Your task to perform on an android device: Go to Google Image 0: 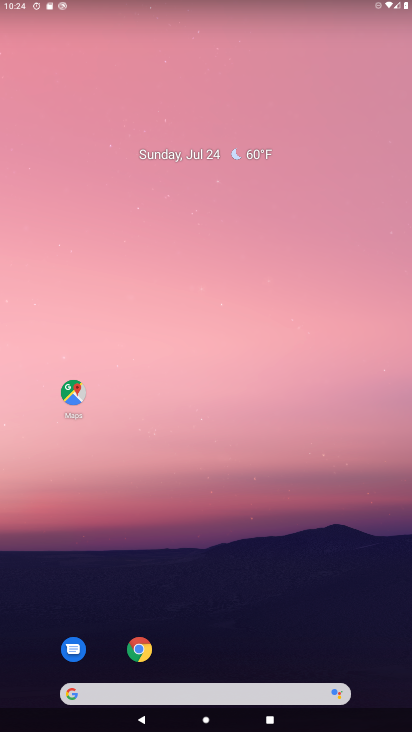
Step 0: drag from (278, 598) to (241, 75)
Your task to perform on an android device: Go to Google Image 1: 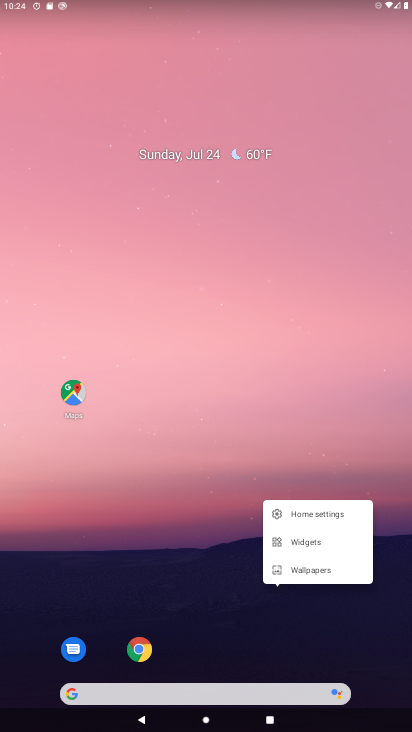
Step 1: click (185, 452)
Your task to perform on an android device: Go to Google Image 2: 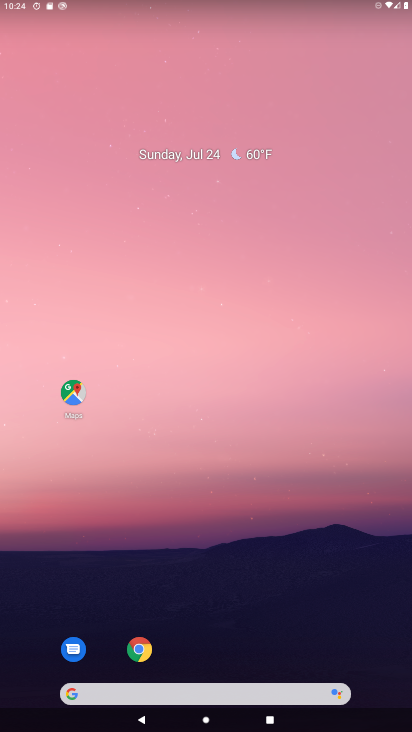
Step 2: drag from (260, 660) to (271, 58)
Your task to perform on an android device: Go to Google Image 3: 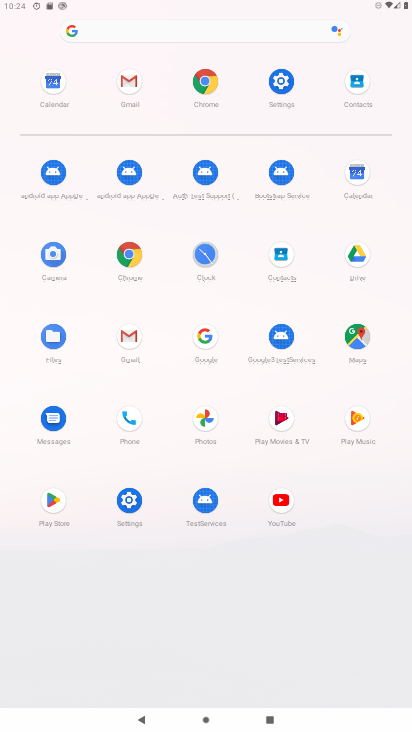
Step 3: click (203, 332)
Your task to perform on an android device: Go to Google Image 4: 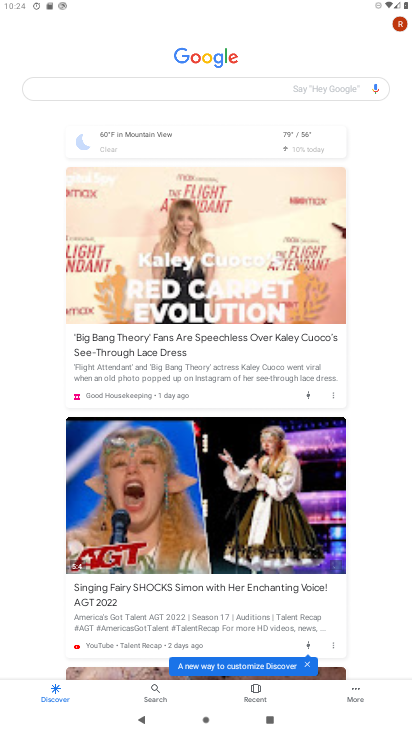
Step 4: task complete